Your task to perform on an android device: check android version Image 0: 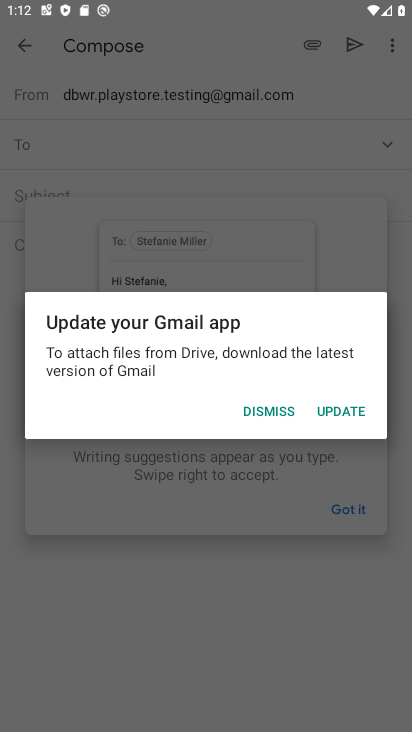
Step 0: press home button
Your task to perform on an android device: check android version Image 1: 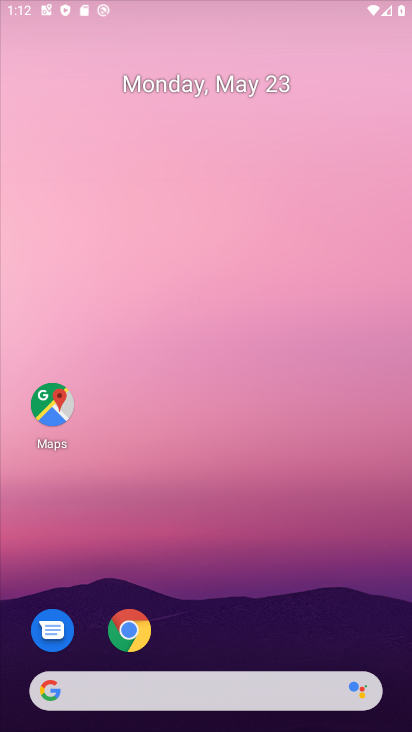
Step 1: drag from (198, 592) to (266, 107)
Your task to perform on an android device: check android version Image 2: 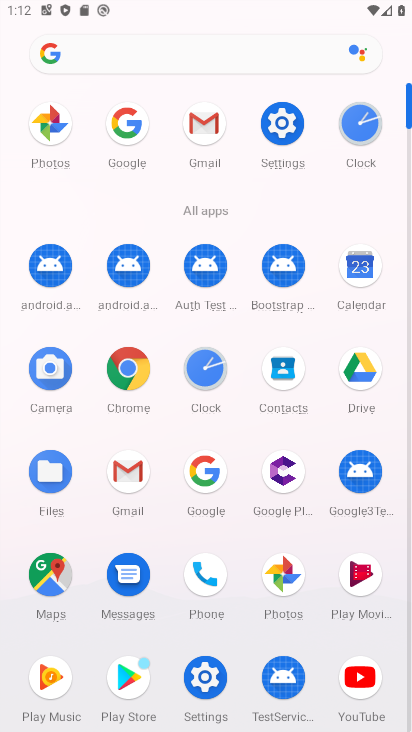
Step 2: click (285, 127)
Your task to perform on an android device: check android version Image 3: 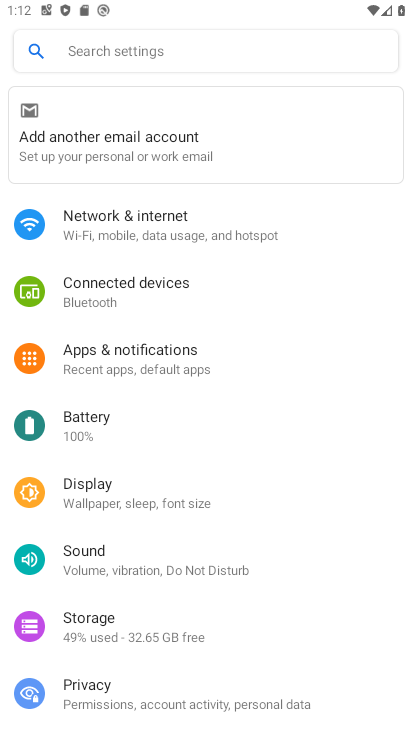
Step 3: drag from (212, 658) to (228, 41)
Your task to perform on an android device: check android version Image 4: 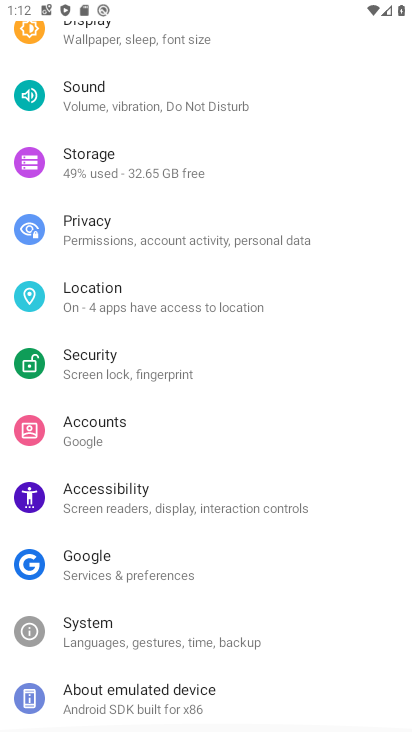
Step 4: drag from (185, 591) to (180, 221)
Your task to perform on an android device: check android version Image 5: 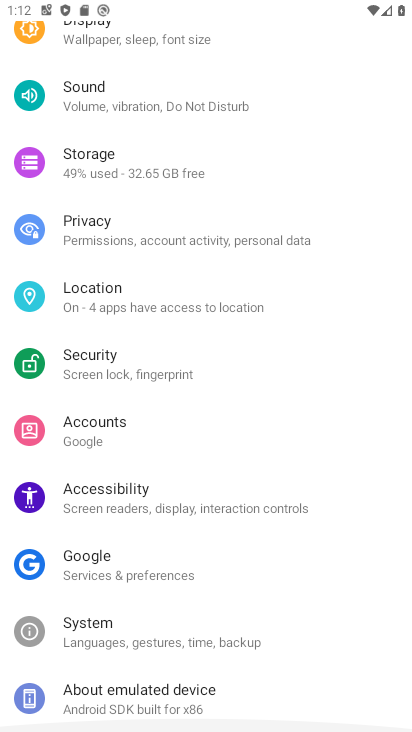
Step 5: click (135, 707)
Your task to perform on an android device: check android version Image 6: 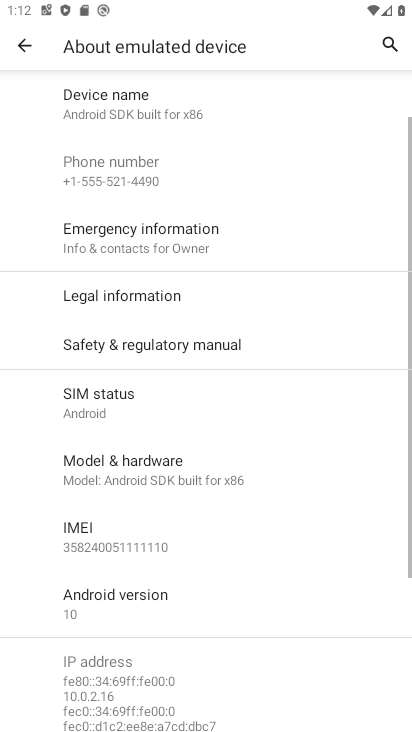
Step 6: click (138, 599)
Your task to perform on an android device: check android version Image 7: 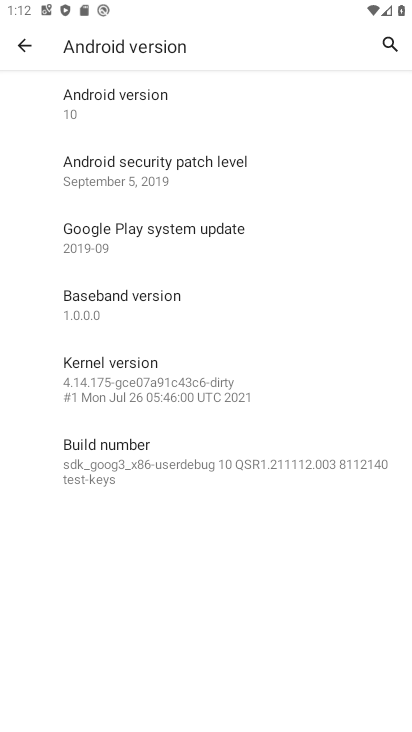
Step 7: task complete